Your task to perform on an android device: find photos in the google photos app Image 0: 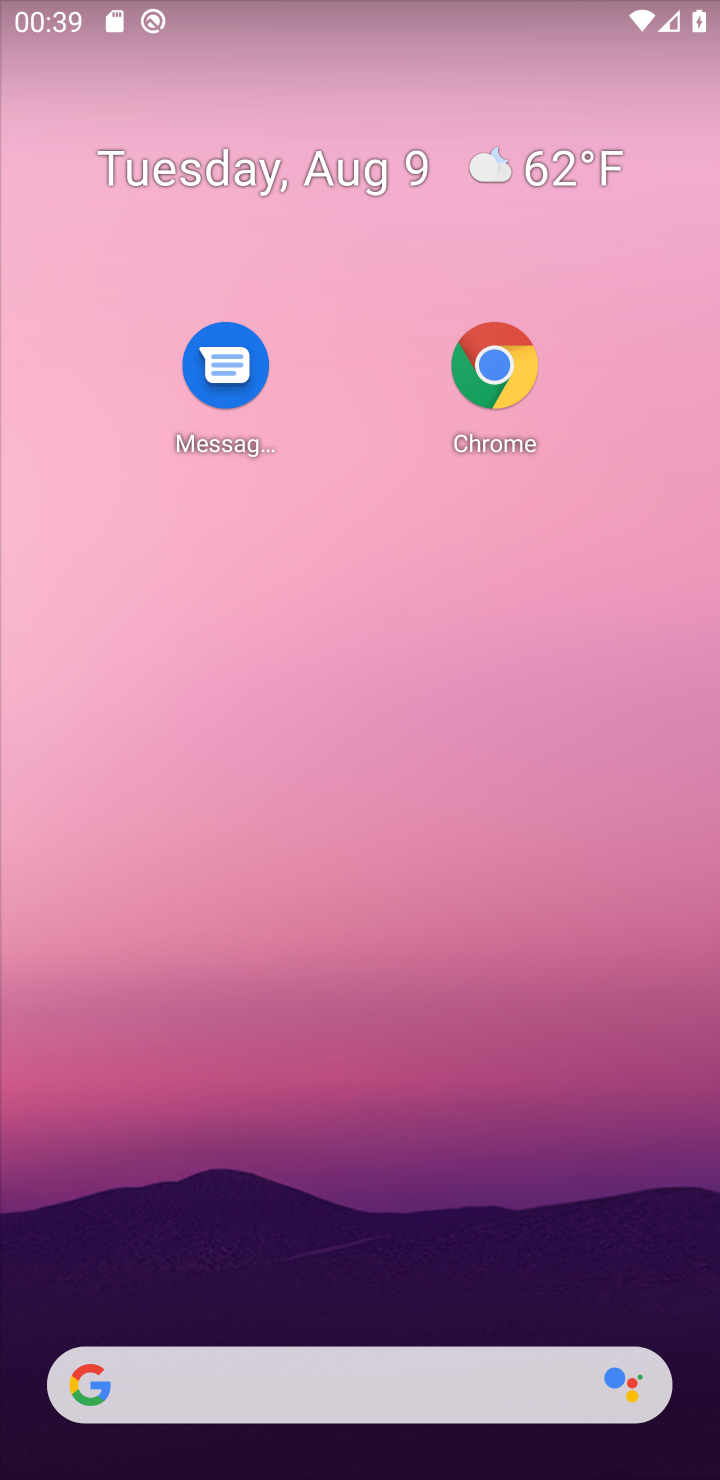
Step 0: drag from (370, 562) to (368, 438)
Your task to perform on an android device: find photos in the google photos app Image 1: 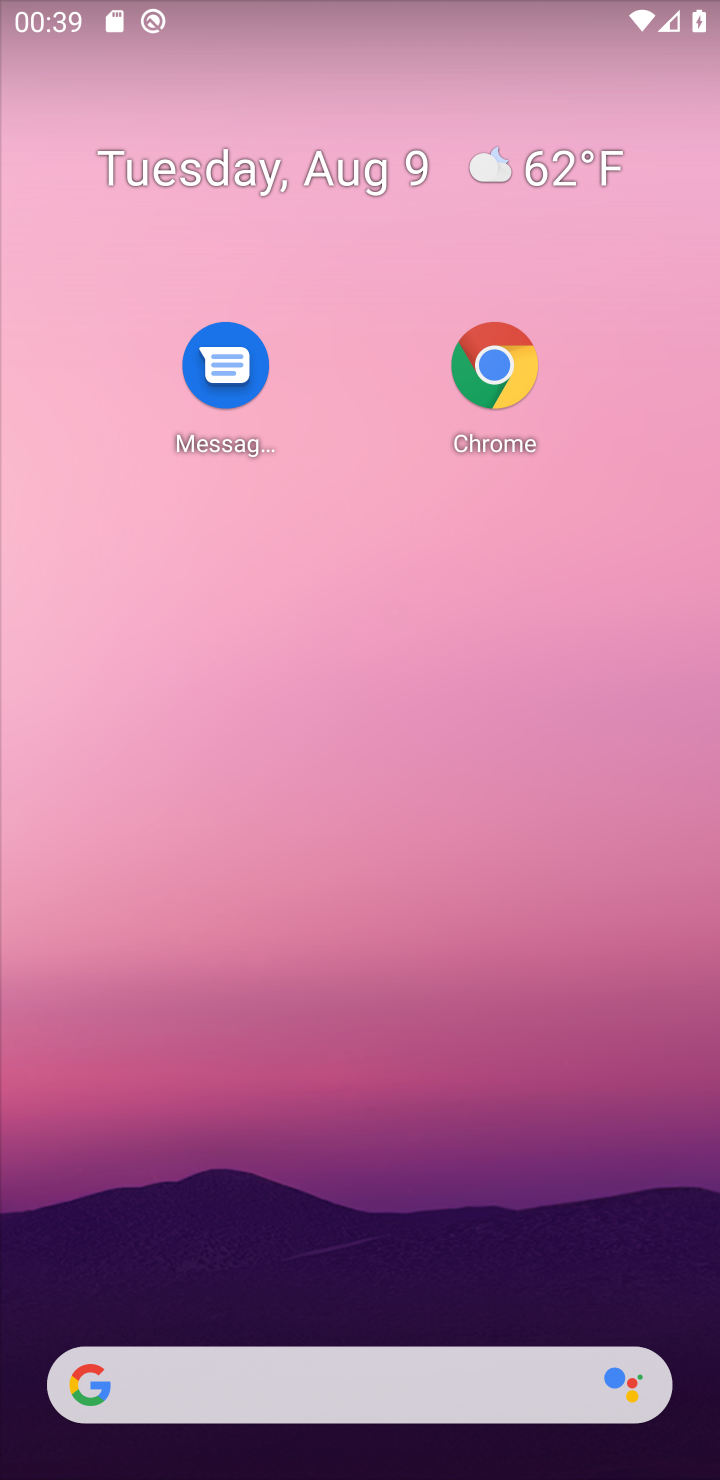
Step 1: drag from (305, 1304) to (329, 368)
Your task to perform on an android device: find photos in the google photos app Image 2: 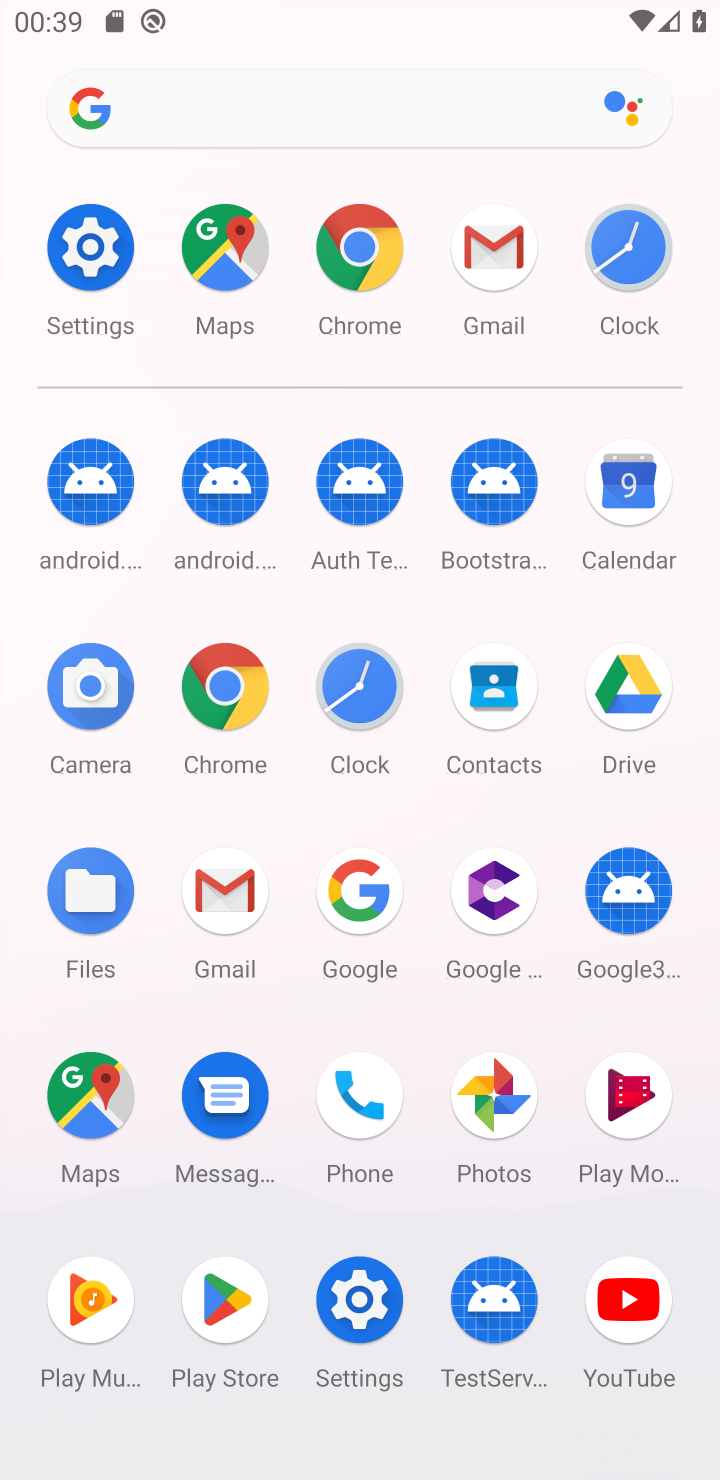
Step 2: click (504, 1076)
Your task to perform on an android device: find photos in the google photos app Image 3: 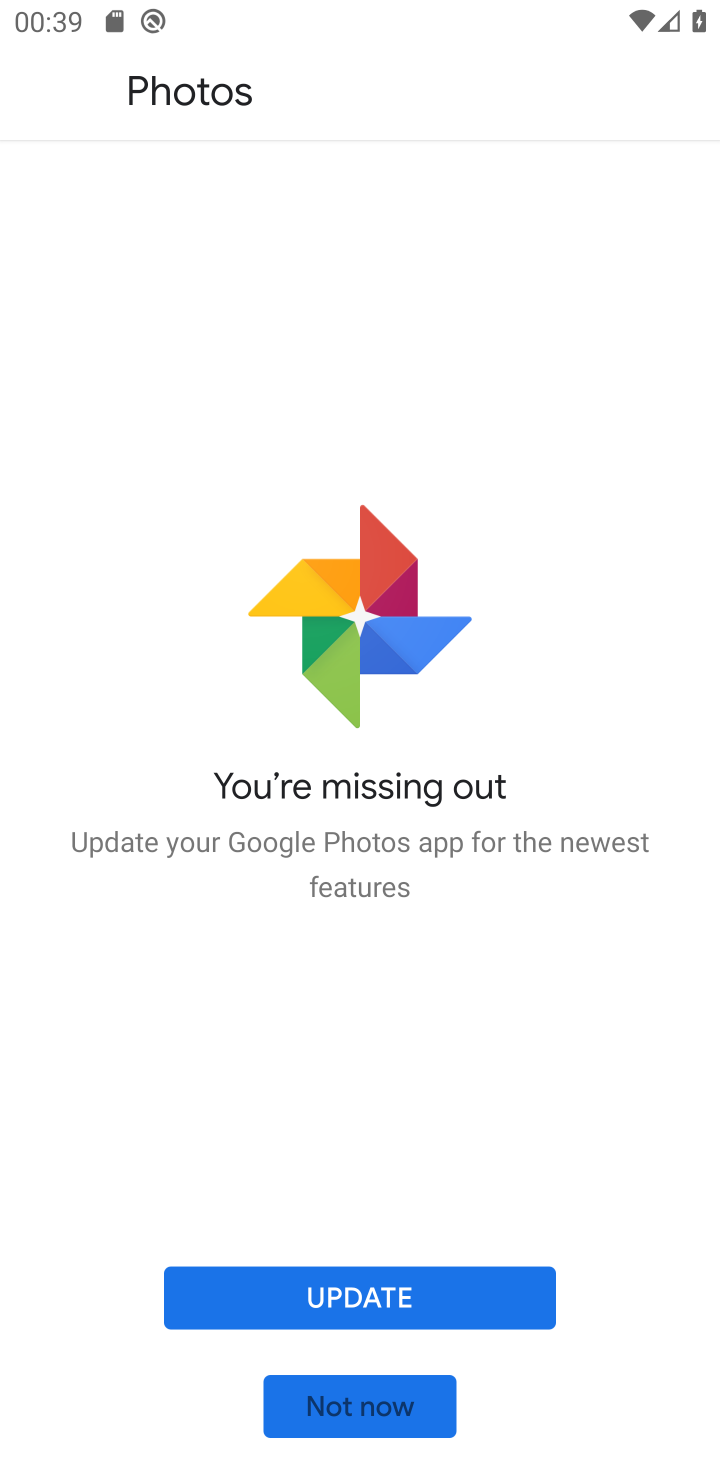
Step 3: click (349, 1398)
Your task to perform on an android device: find photos in the google photos app Image 4: 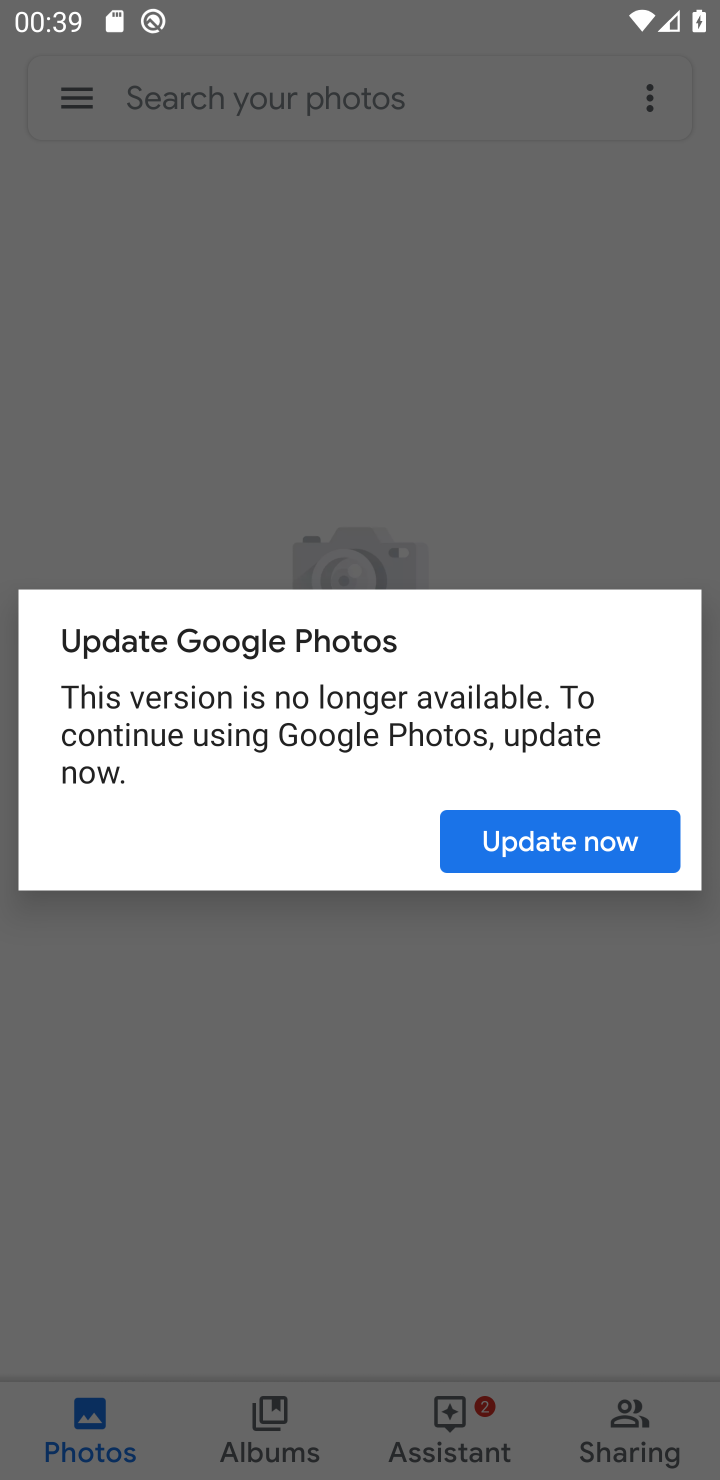
Step 4: click (260, 1423)
Your task to perform on an android device: find photos in the google photos app Image 5: 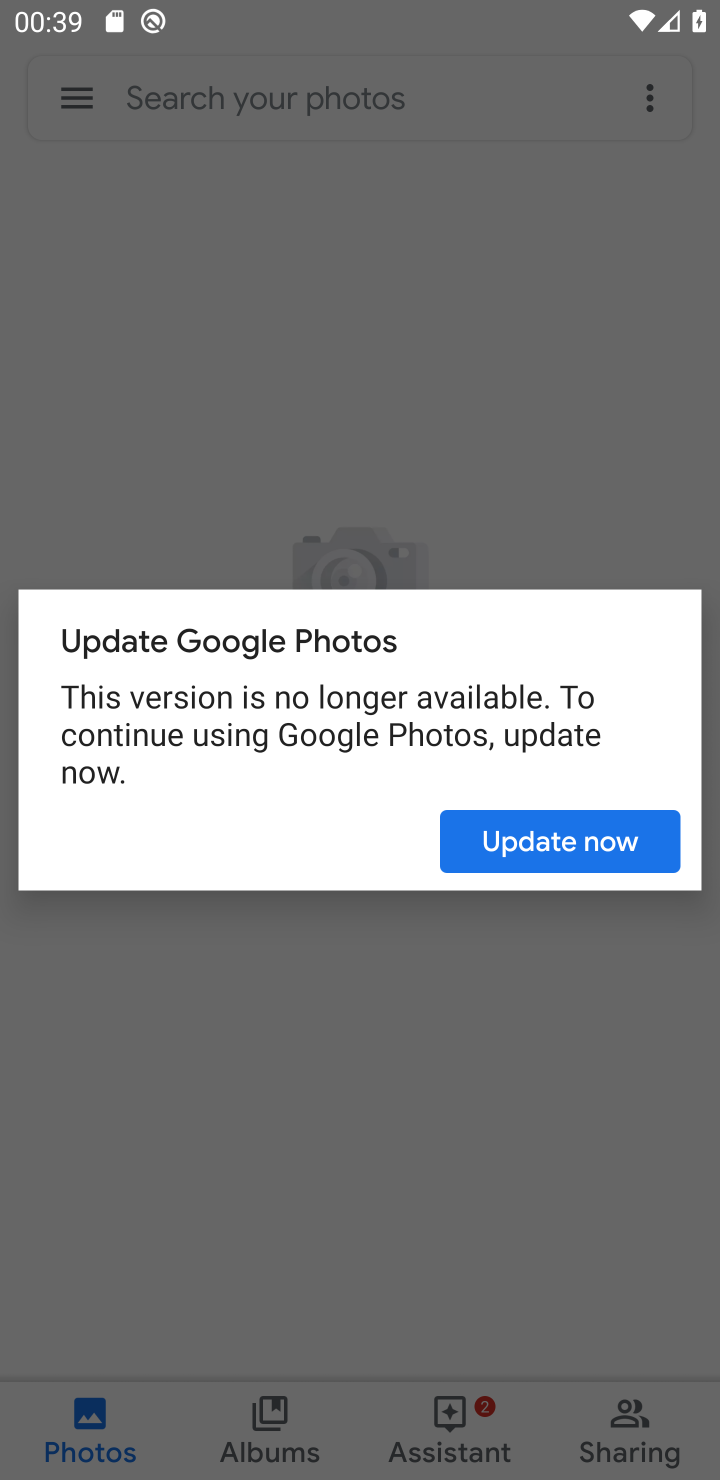
Step 5: click (549, 817)
Your task to perform on an android device: find photos in the google photos app Image 6: 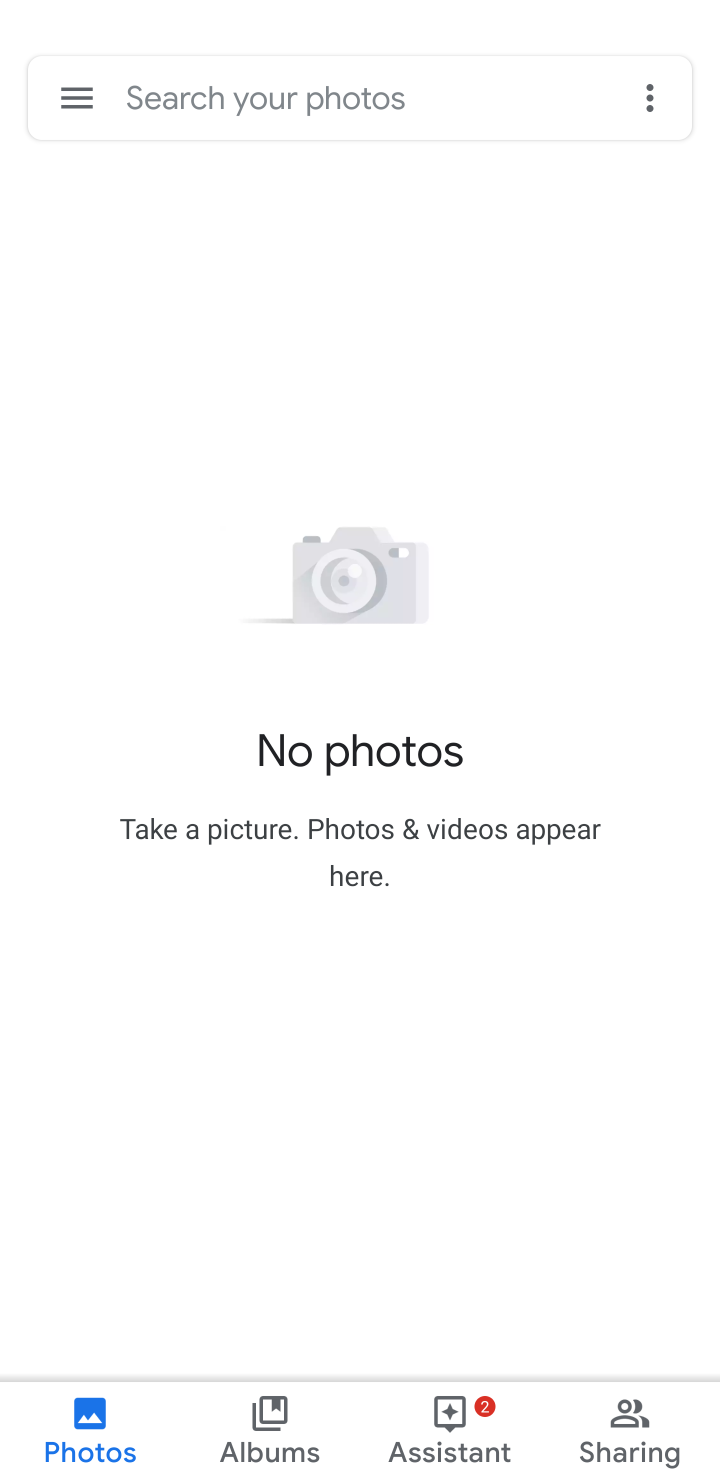
Step 6: press back button
Your task to perform on an android device: find photos in the google photos app Image 7: 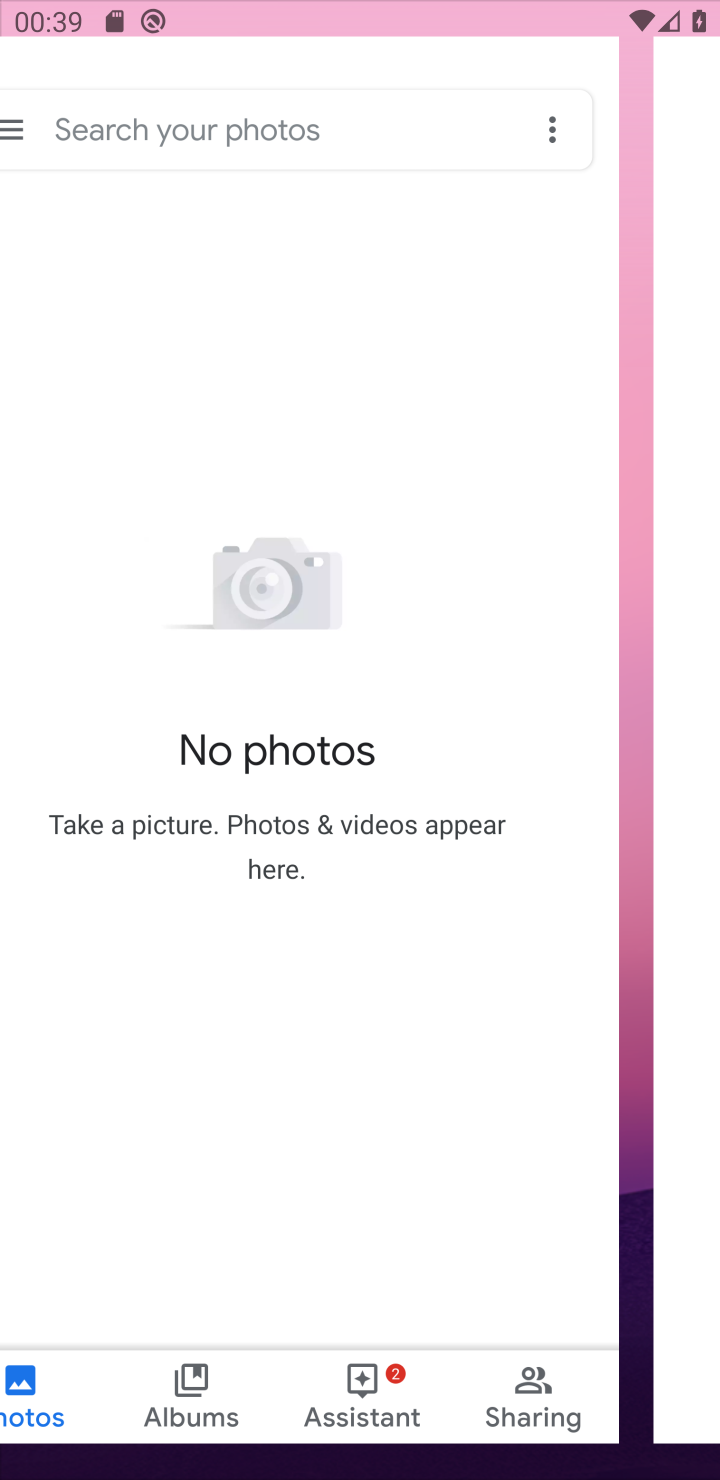
Step 7: click (265, 1413)
Your task to perform on an android device: find photos in the google photos app Image 8: 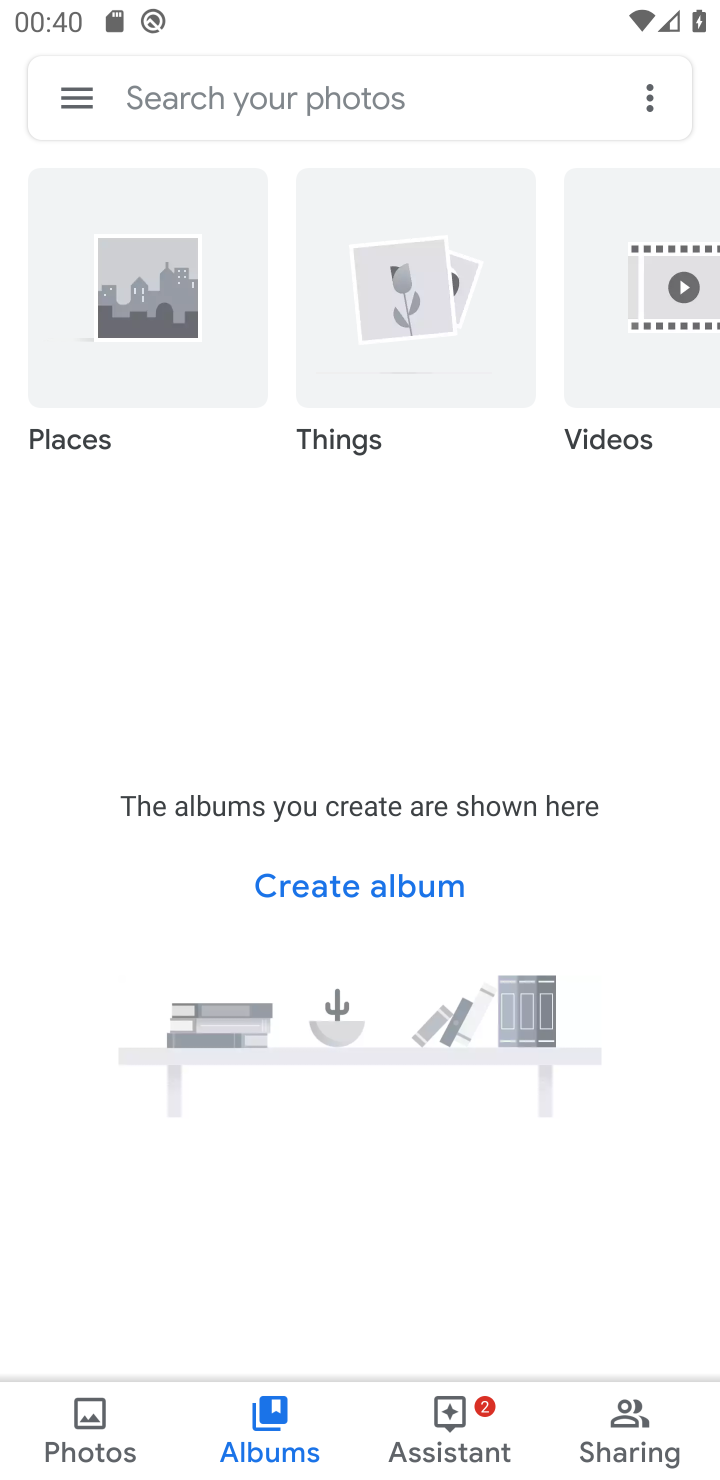
Step 8: task complete